Your task to perform on an android device: see sites visited before in the chrome app Image 0: 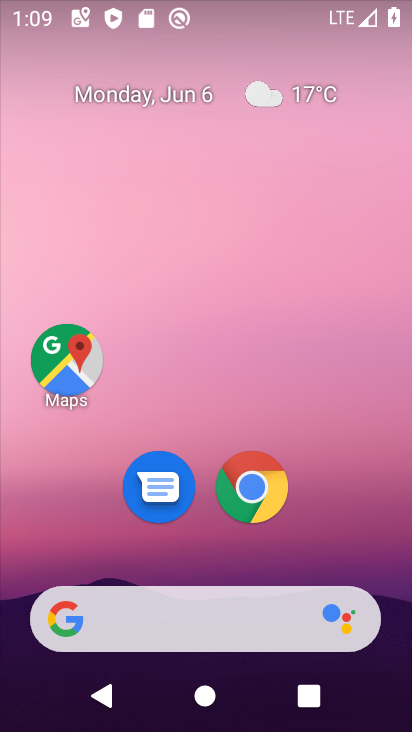
Step 0: click (254, 486)
Your task to perform on an android device: see sites visited before in the chrome app Image 1: 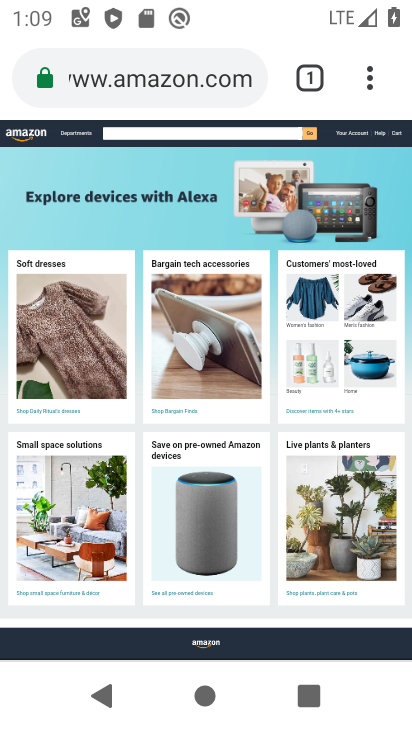
Step 1: task complete